Your task to perform on an android device: Open battery settings Image 0: 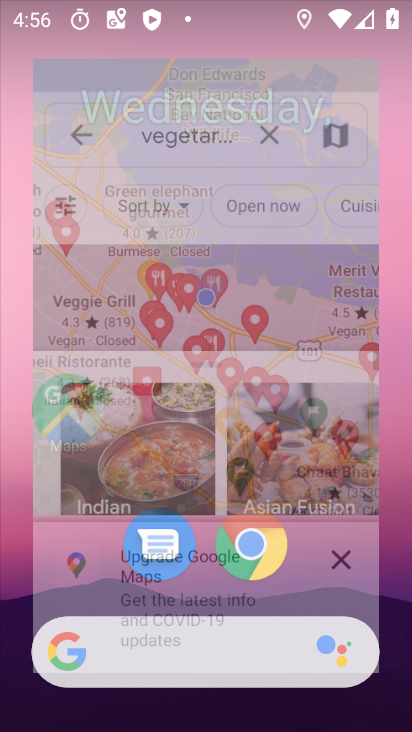
Step 0: drag from (195, 622) to (147, 3)
Your task to perform on an android device: Open battery settings Image 1: 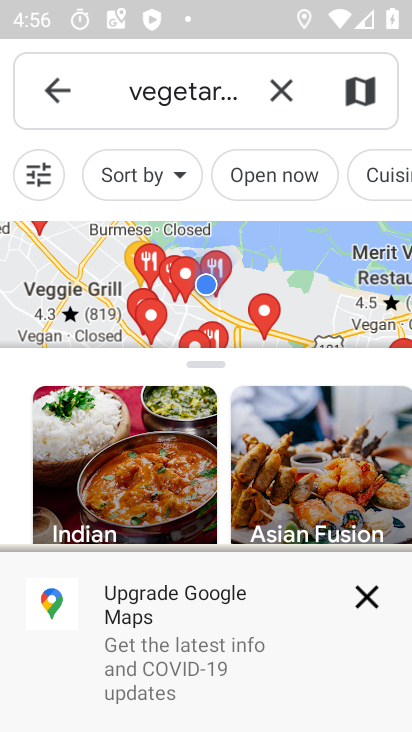
Step 1: press home button
Your task to perform on an android device: Open battery settings Image 2: 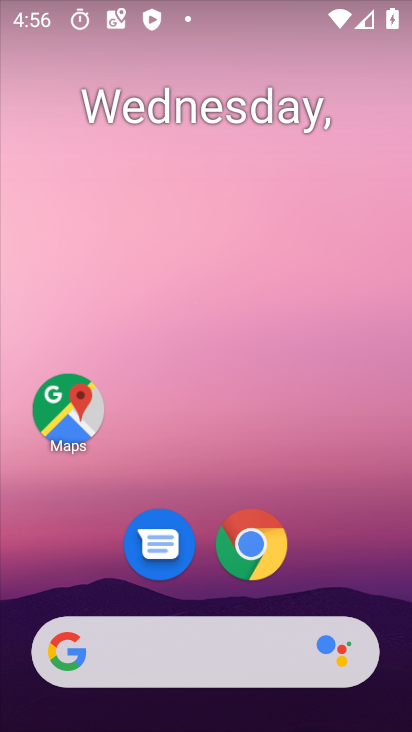
Step 2: drag from (226, 603) to (233, 13)
Your task to perform on an android device: Open battery settings Image 3: 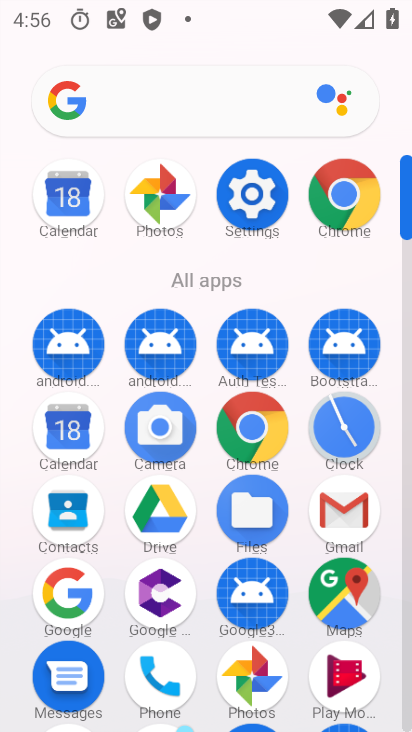
Step 3: click (263, 148)
Your task to perform on an android device: Open battery settings Image 4: 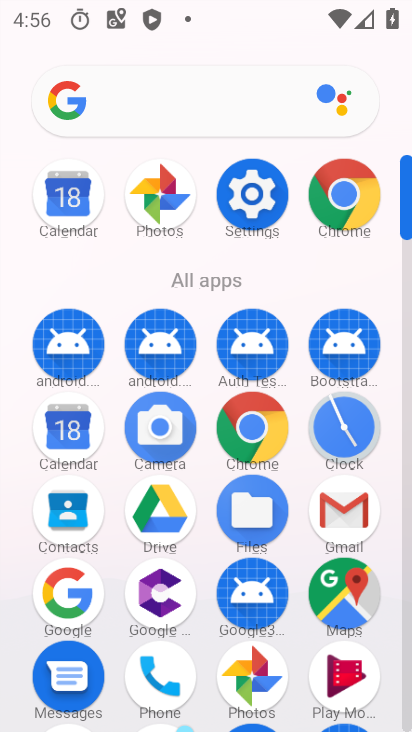
Step 4: click (249, 231)
Your task to perform on an android device: Open battery settings Image 5: 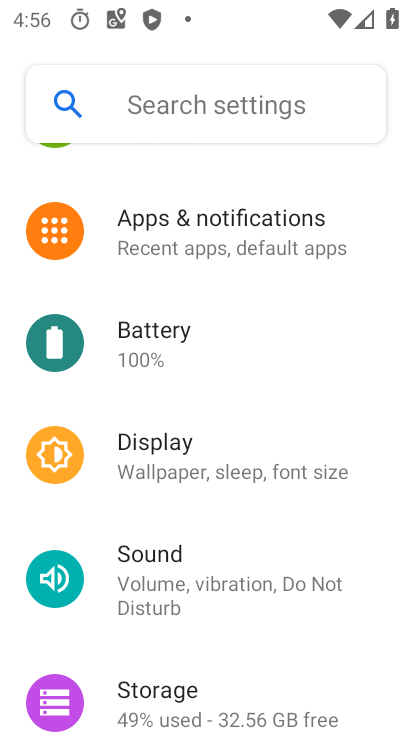
Step 5: click (202, 347)
Your task to perform on an android device: Open battery settings Image 6: 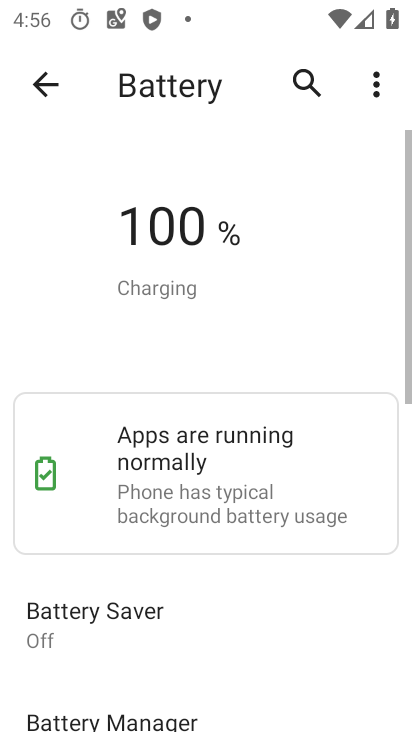
Step 6: task complete